Your task to perform on an android device: Open internet settings Image 0: 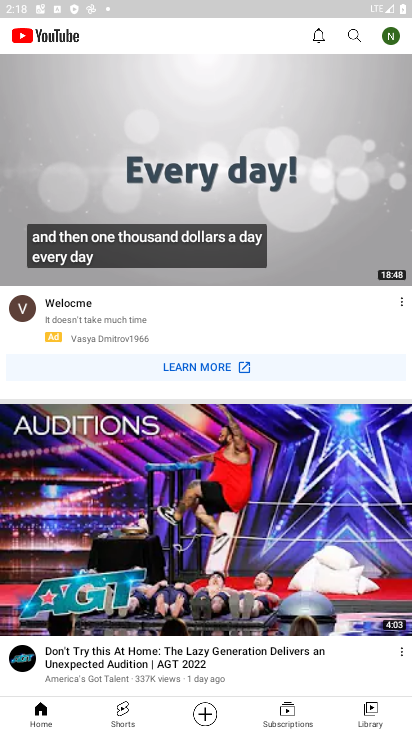
Step 0: press home button
Your task to perform on an android device: Open internet settings Image 1: 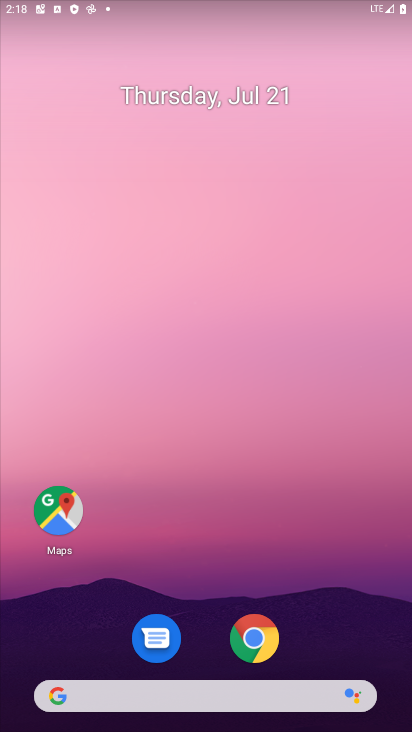
Step 1: drag from (207, 712) to (124, 55)
Your task to perform on an android device: Open internet settings Image 2: 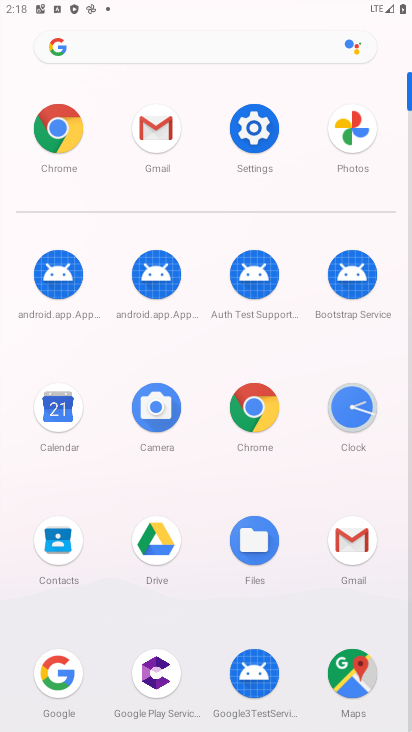
Step 2: click (254, 123)
Your task to perform on an android device: Open internet settings Image 3: 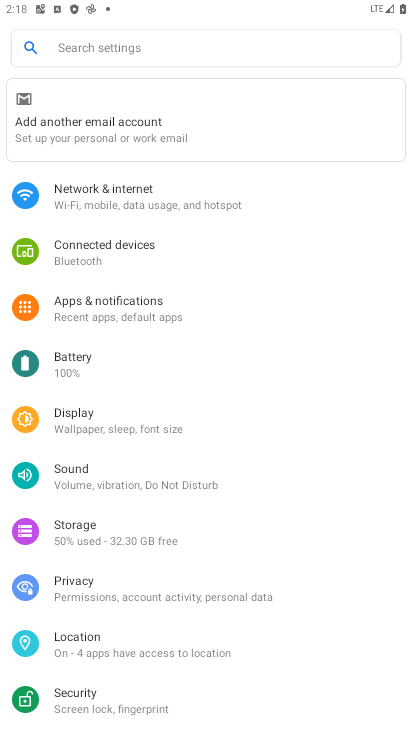
Step 3: click (163, 193)
Your task to perform on an android device: Open internet settings Image 4: 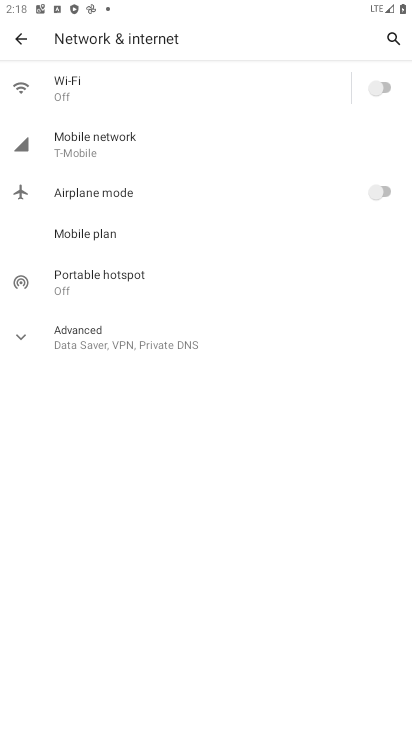
Step 4: task complete